Your task to perform on an android device: Open sound settings Image 0: 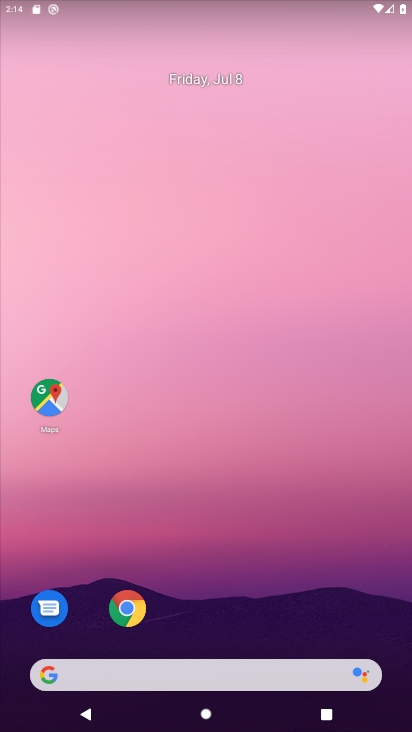
Step 0: drag from (254, 631) to (318, 137)
Your task to perform on an android device: Open sound settings Image 1: 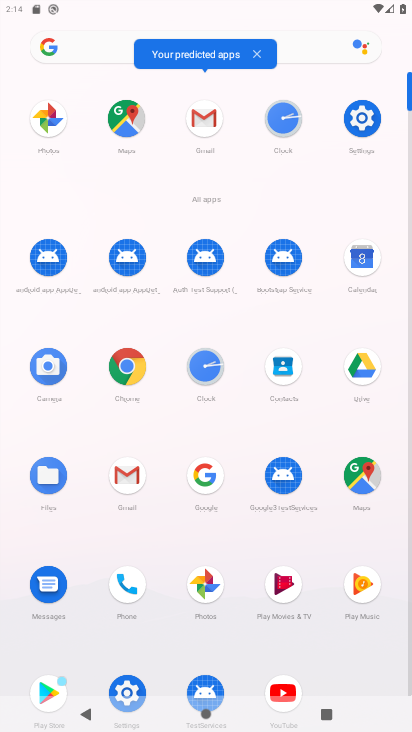
Step 1: click (363, 111)
Your task to perform on an android device: Open sound settings Image 2: 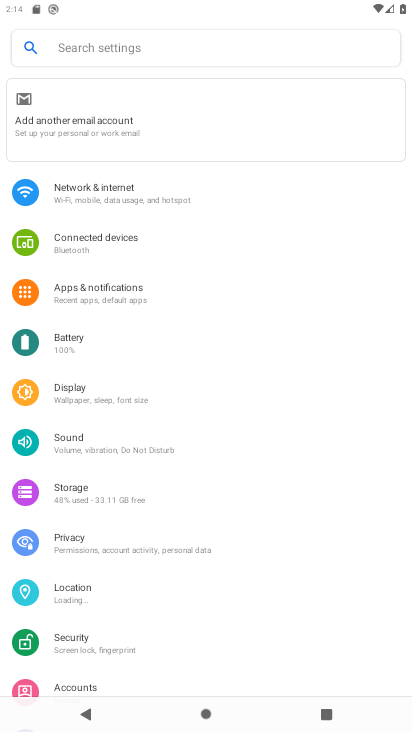
Step 2: click (126, 432)
Your task to perform on an android device: Open sound settings Image 3: 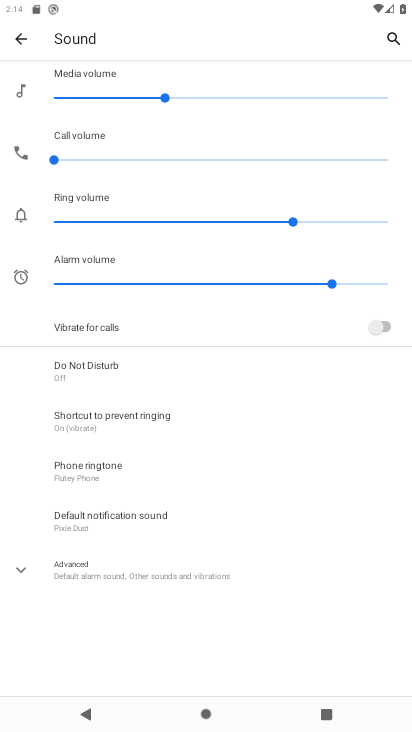
Step 3: task complete